Your task to perform on an android device: Search for seafood restaurants on Google Maps Image 0: 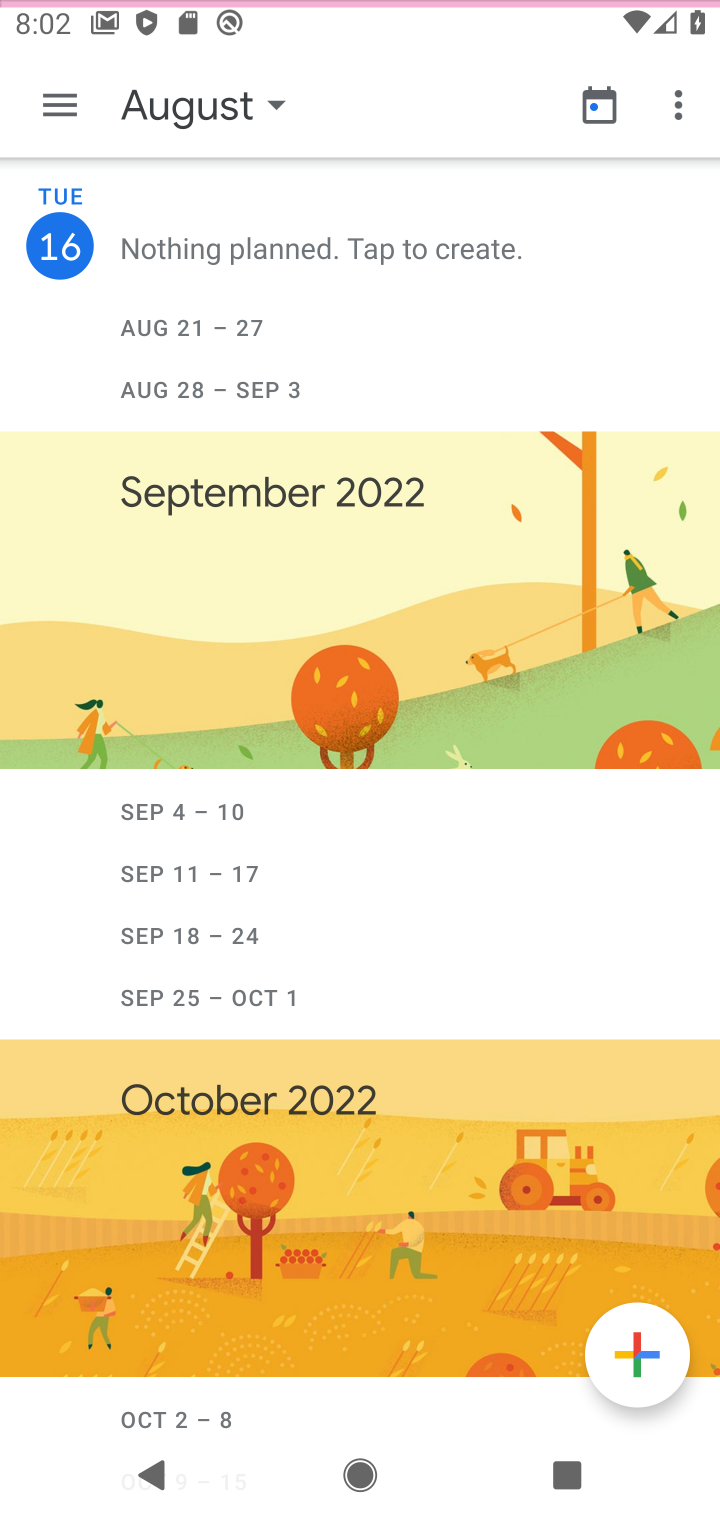
Step 0: press home button
Your task to perform on an android device: Search for seafood restaurants on Google Maps Image 1: 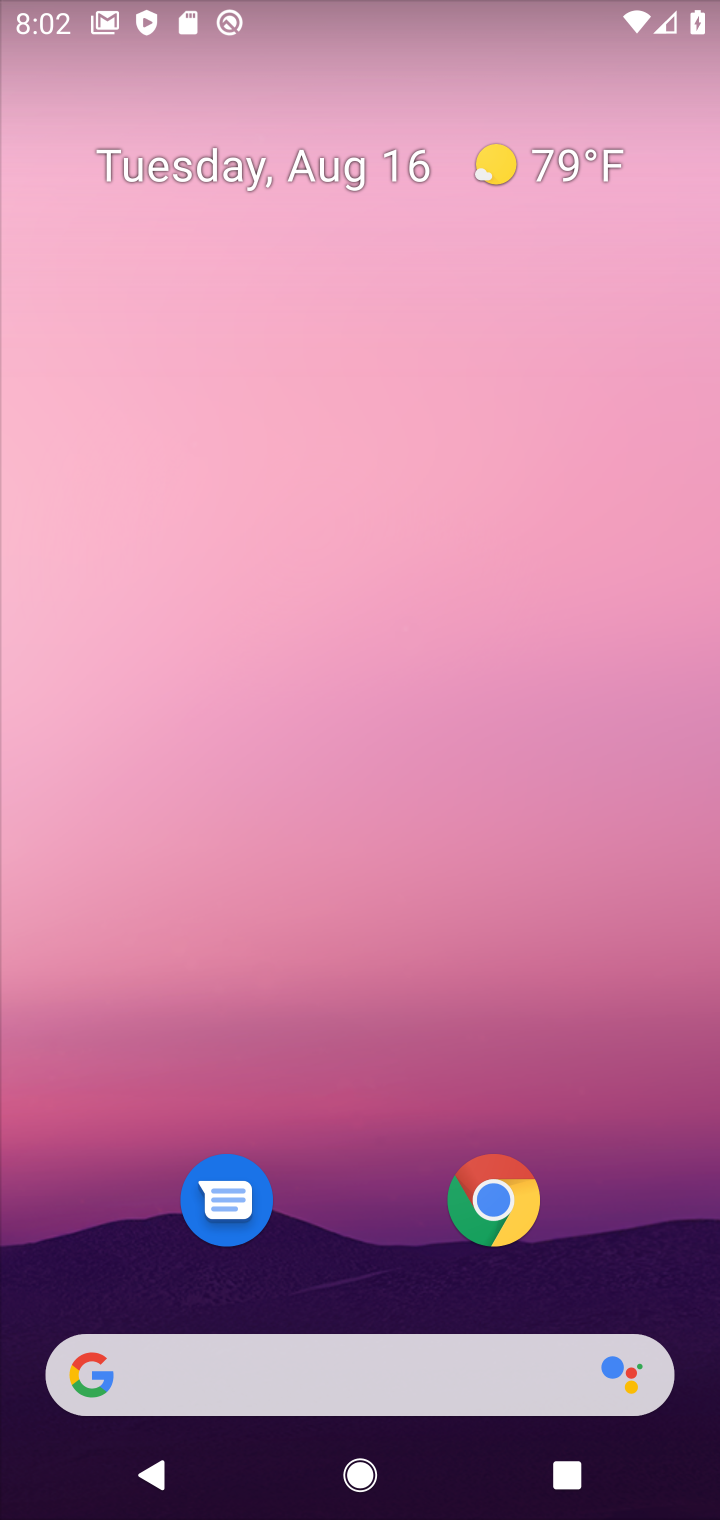
Step 1: drag from (623, 1238) to (590, 436)
Your task to perform on an android device: Search for seafood restaurants on Google Maps Image 2: 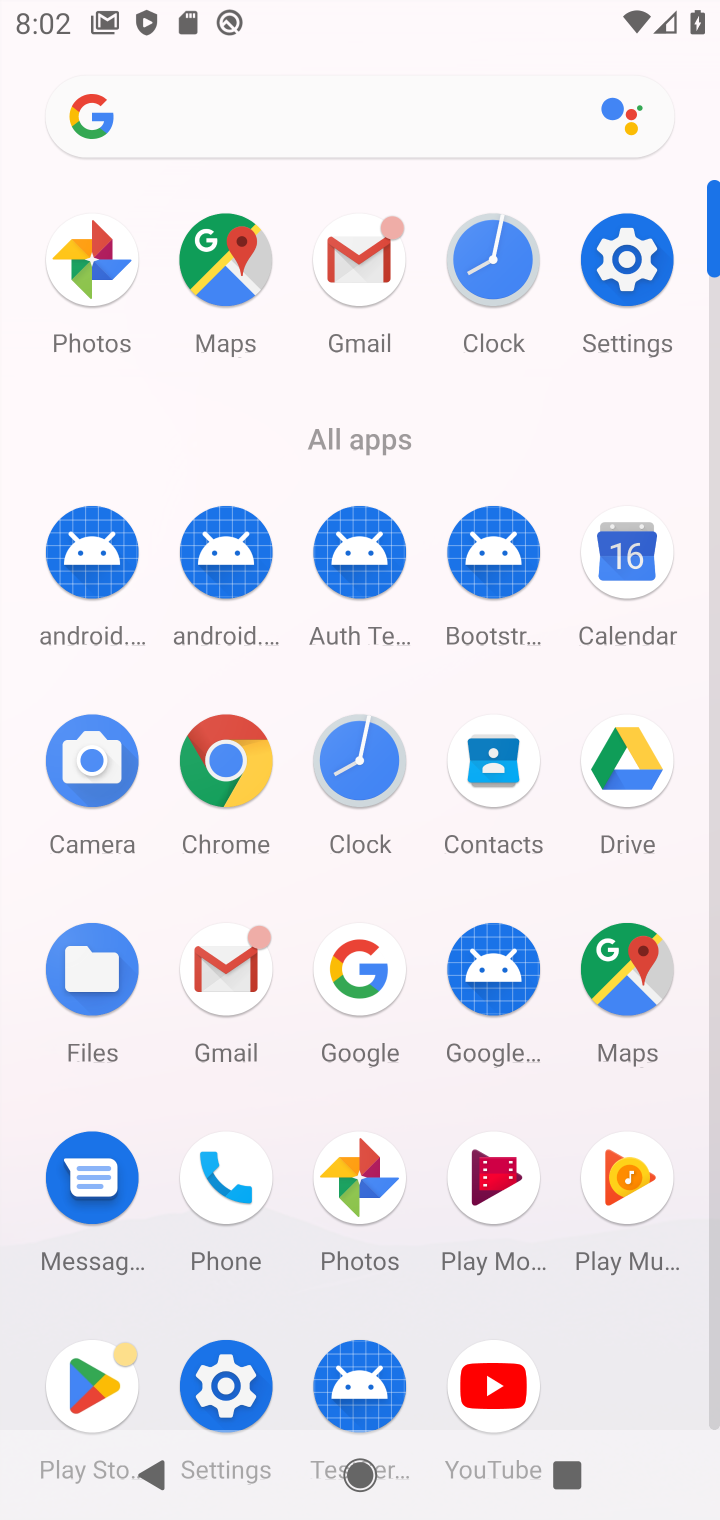
Step 2: click (622, 967)
Your task to perform on an android device: Search for seafood restaurants on Google Maps Image 3: 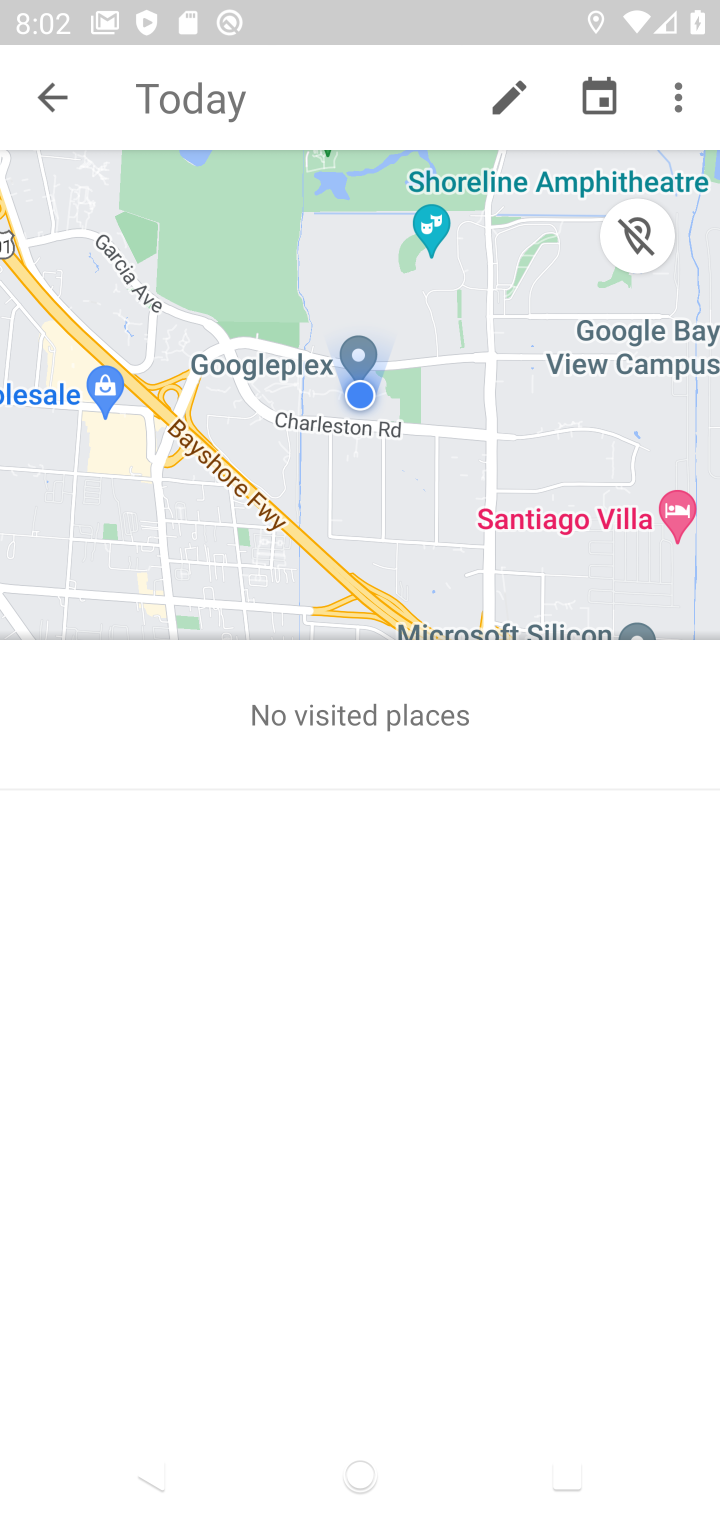
Step 3: press back button
Your task to perform on an android device: Search for seafood restaurants on Google Maps Image 4: 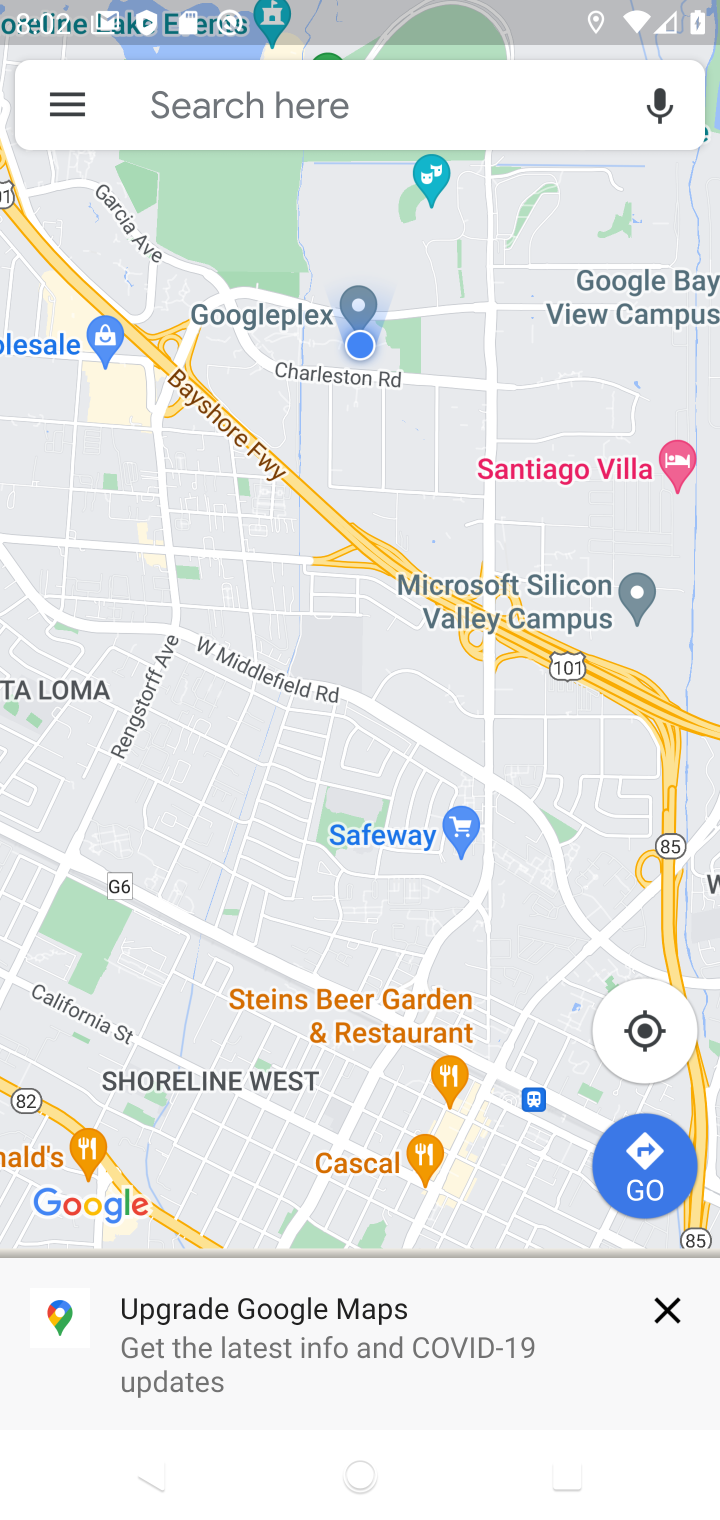
Step 4: click (249, 97)
Your task to perform on an android device: Search for seafood restaurants on Google Maps Image 5: 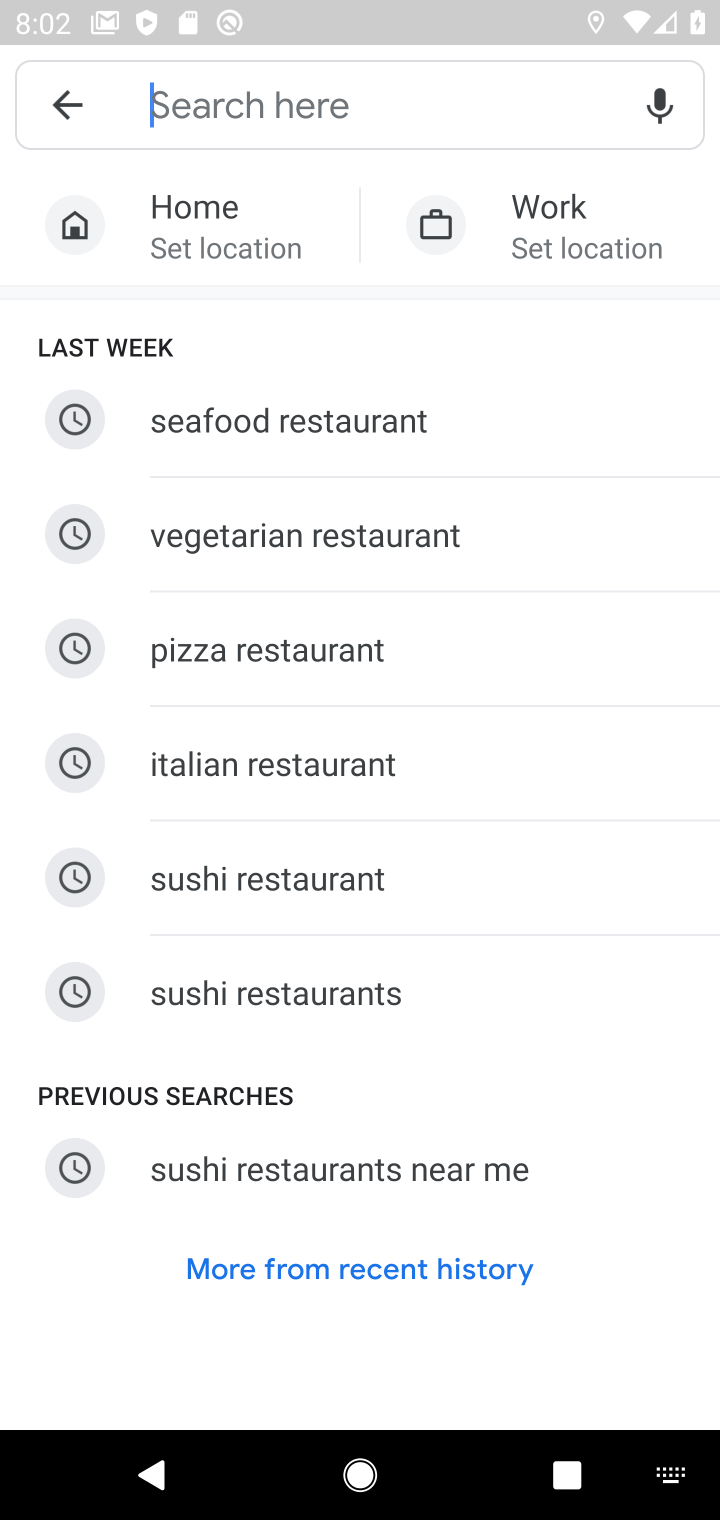
Step 5: type "seafood restaurants"
Your task to perform on an android device: Search for seafood restaurants on Google Maps Image 6: 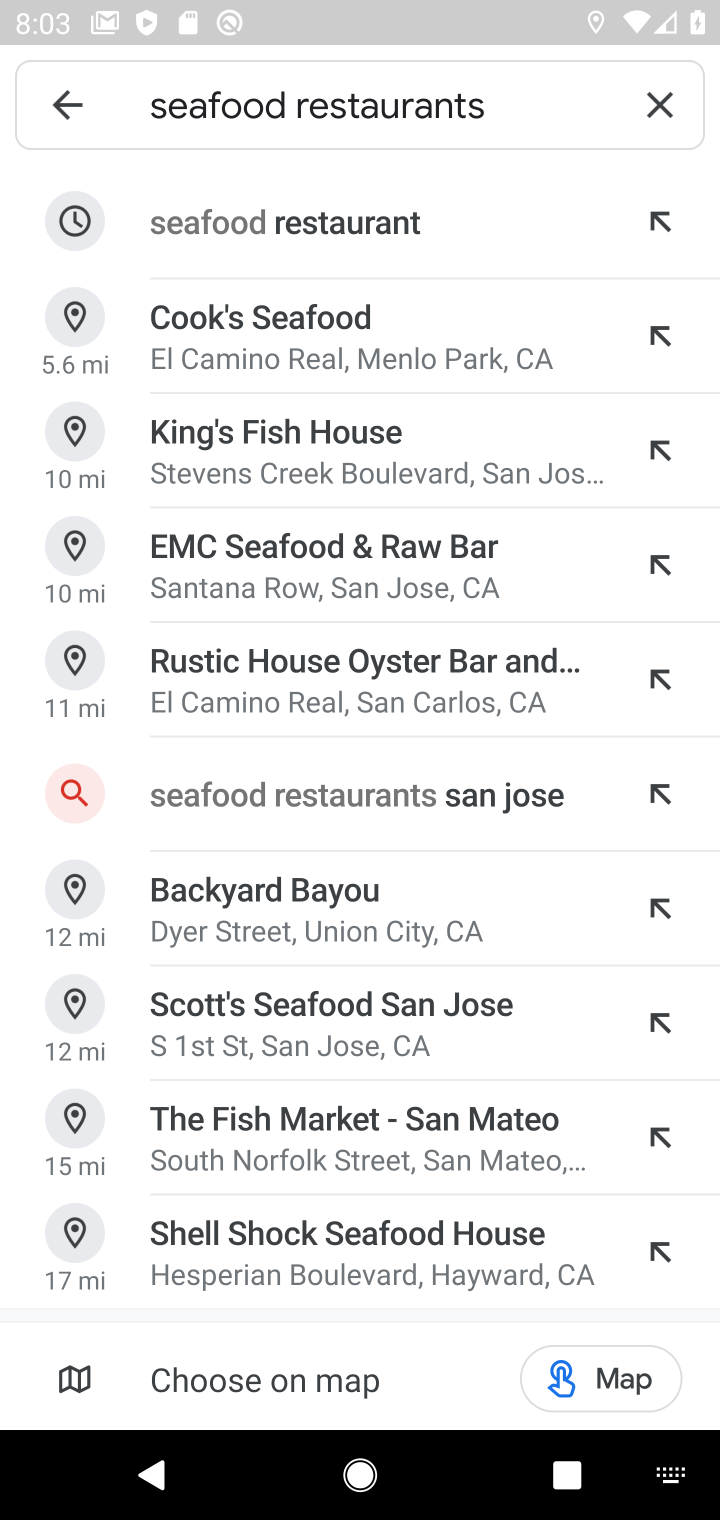
Step 6: click (289, 238)
Your task to perform on an android device: Search for seafood restaurants on Google Maps Image 7: 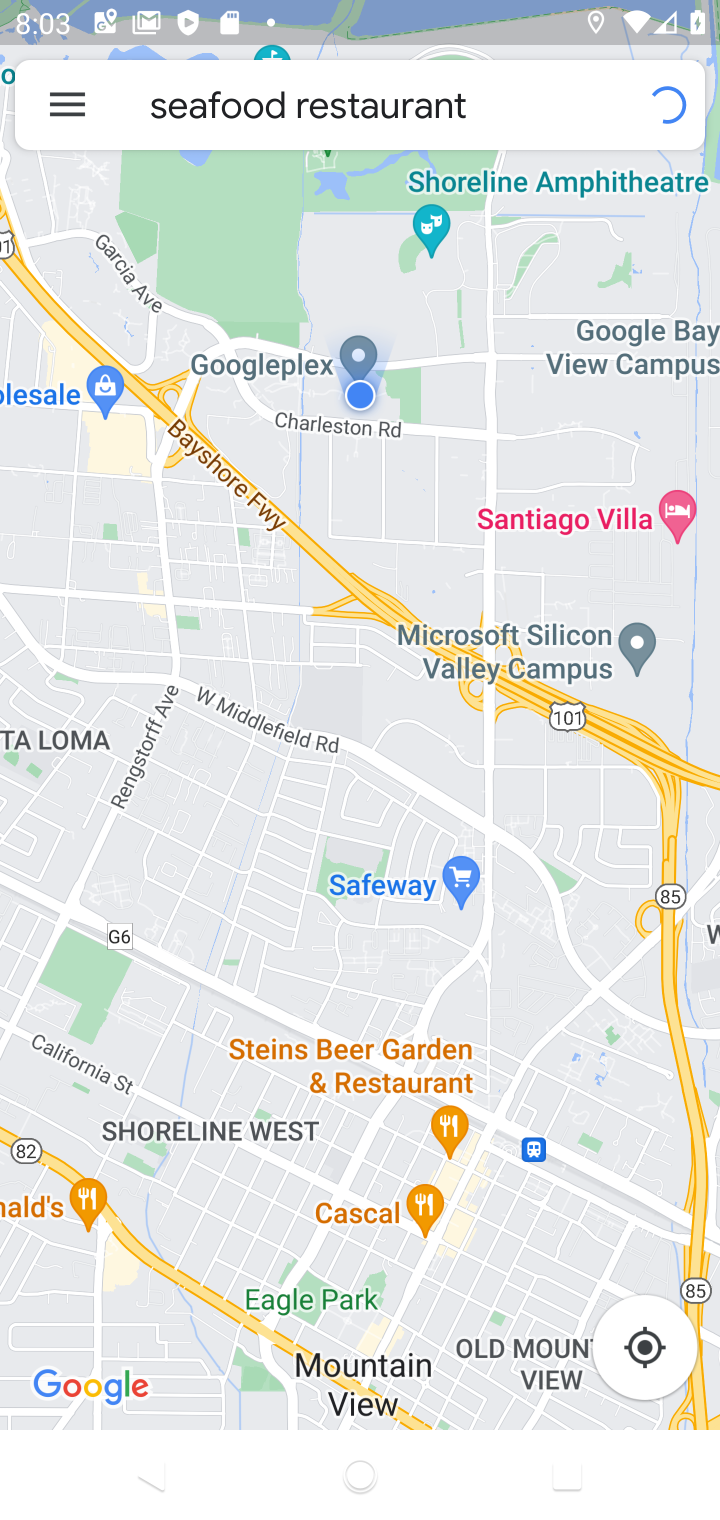
Step 7: task complete